Your task to perform on an android device: delete a single message in the gmail app Image 0: 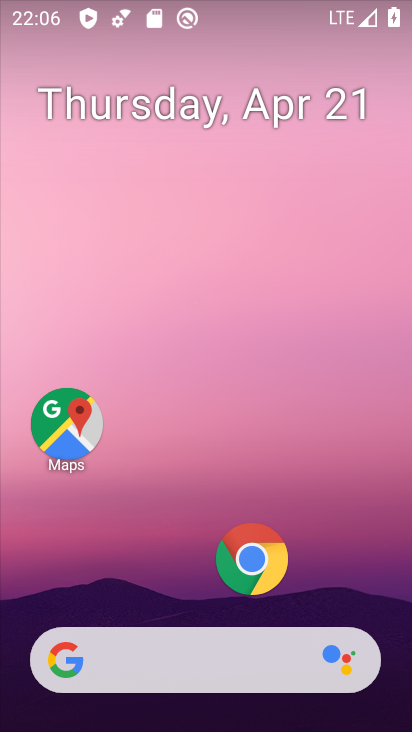
Step 0: drag from (133, 595) to (160, 264)
Your task to perform on an android device: delete a single message in the gmail app Image 1: 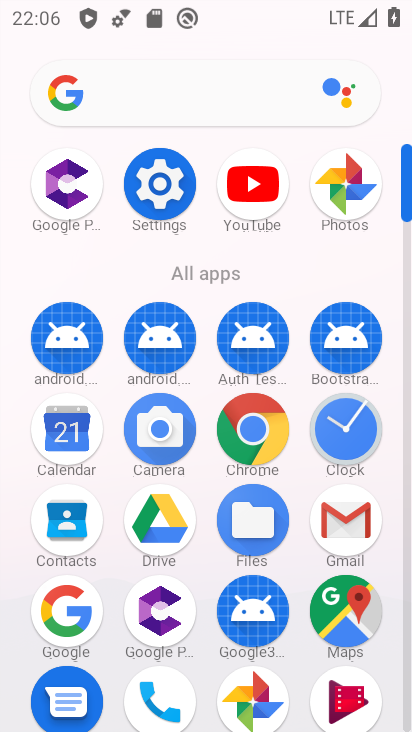
Step 1: click (347, 530)
Your task to perform on an android device: delete a single message in the gmail app Image 2: 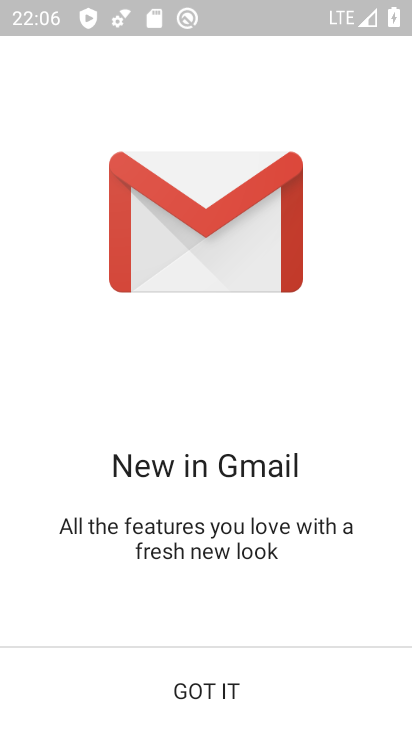
Step 2: click (194, 679)
Your task to perform on an android device: delete a single message in the gmail app Image 3: 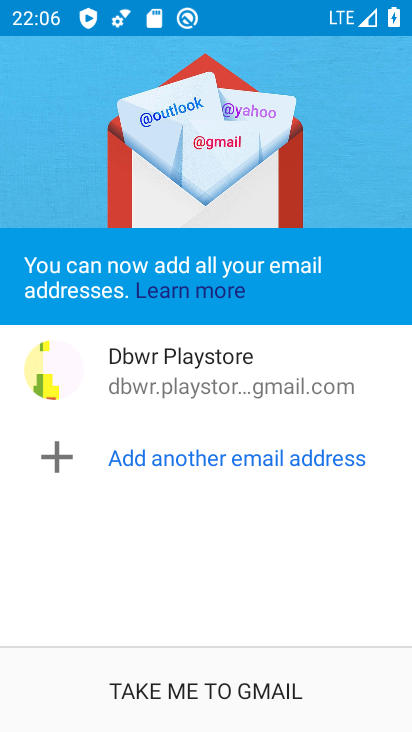
Step 3: click (152, 382)
Your task to perform on an android device: delete a single message in the gmail app Image 4: 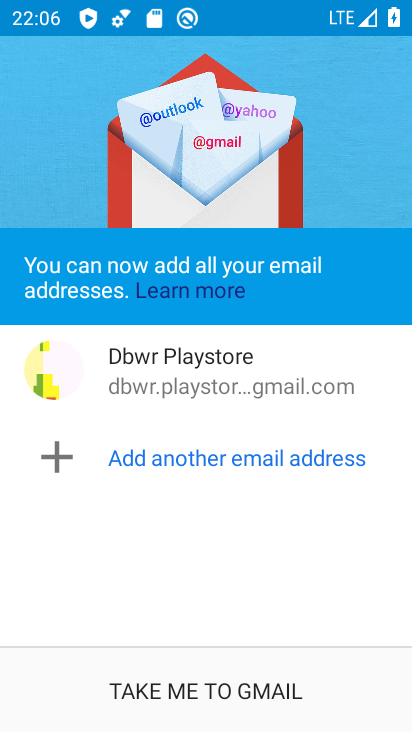
Step 4: click (188, 693)
Your task to perform on an android device: delete a single message in the gmail app Image 5: 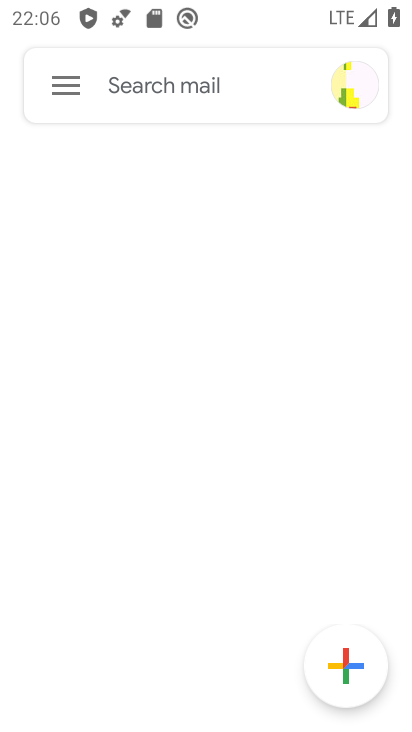
Step 5: click (76, 93)
Your task to perform on an android device: delete a single message in the gmail app Image 6: 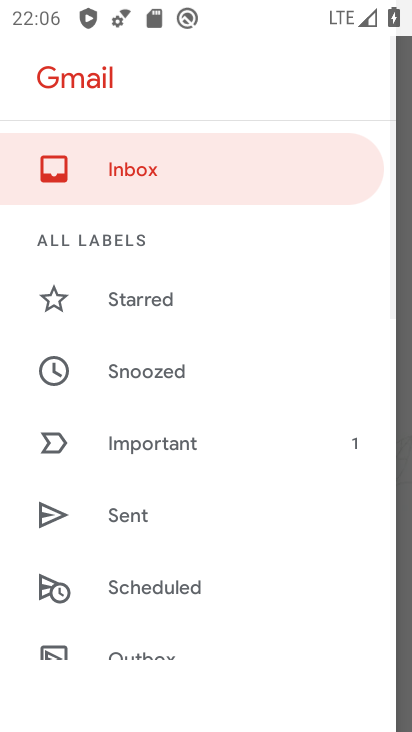
Step 6: drag from (184, 597) to (239, 202)
Your task to perform on an android device: delete a single message in the gmail app Image 7: 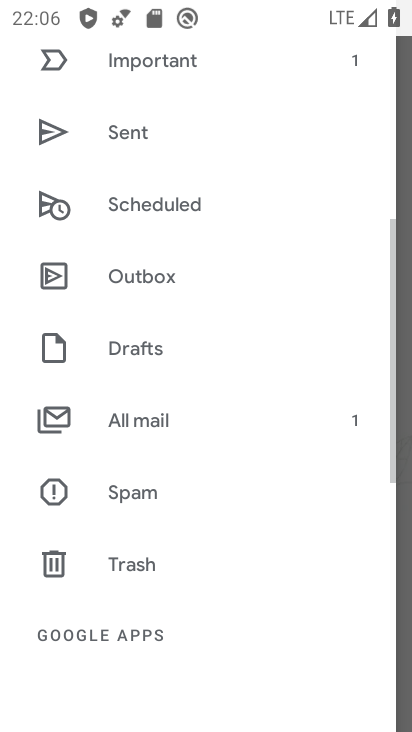
Step 7: click (158, 425)
Your task to perform on an android device: delete a single message in the gmail app Image 8: 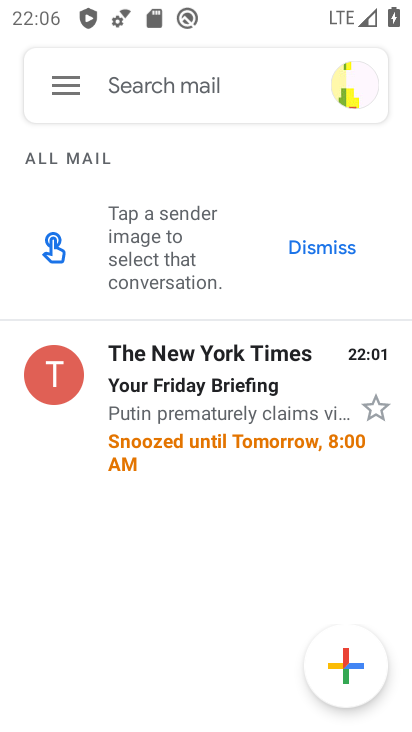
Step 8: click (243, 368)
Your task to perform on an android device: delete a single message in the gmail app Image 9: 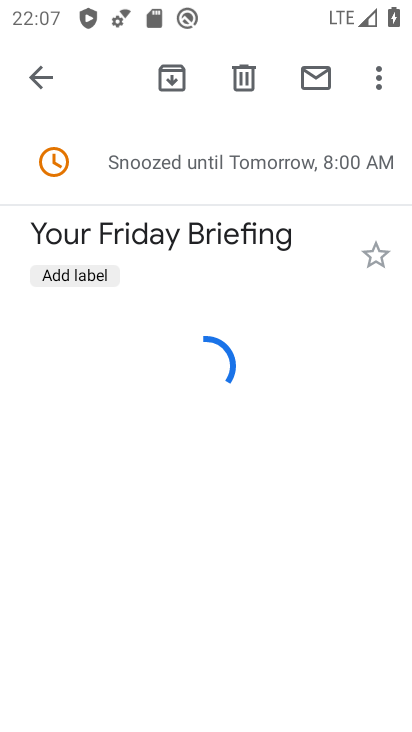
Step 9: click (256, 75)
Your task to perform on an android device: delete a single message in the gmail app Image 10: 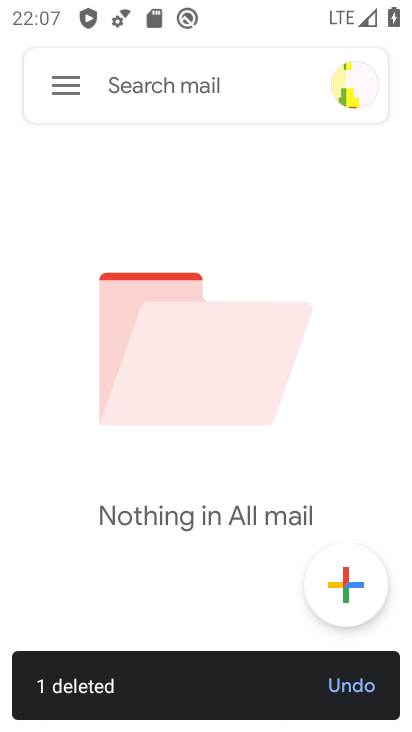
Step 10: task complete